Your task to perform on an android device: toggle sleep mode Image 0: 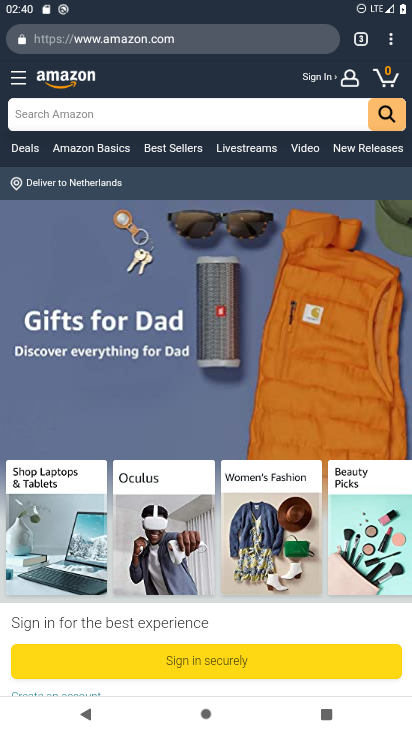
Step 0: press home button
Your task to perform on an android device: toggle sleep mode Image 1: 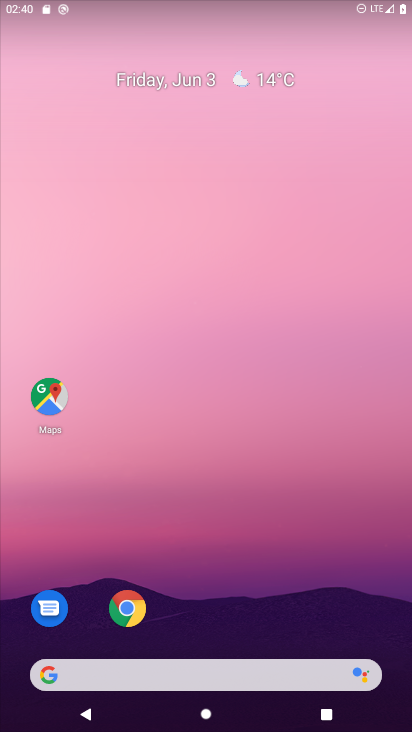
Step 1: drag from (244, 568) to (293, 100)
Your task to perform on an android device: toggle sleep mode Image 2: 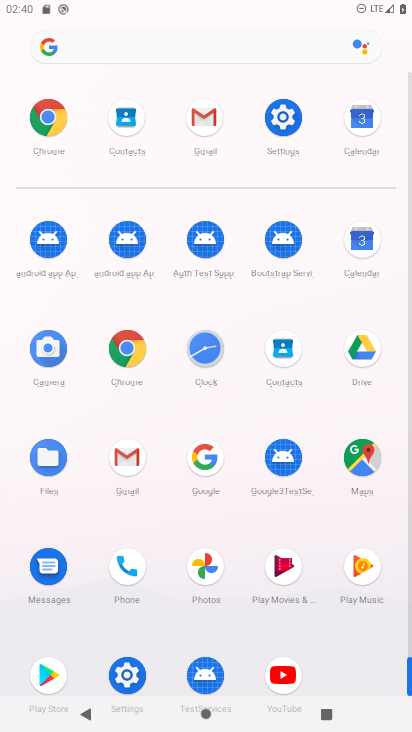
Step 2: click (287, 125)
Your task to perform on an android device: toggle sleep mode Image 3: 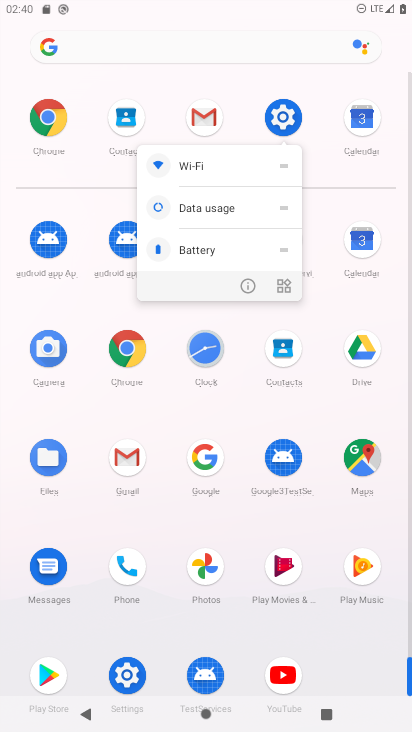
Step 3: click (286, 123)
Your task to perform on an android device: toggle sleep mode Image 4: 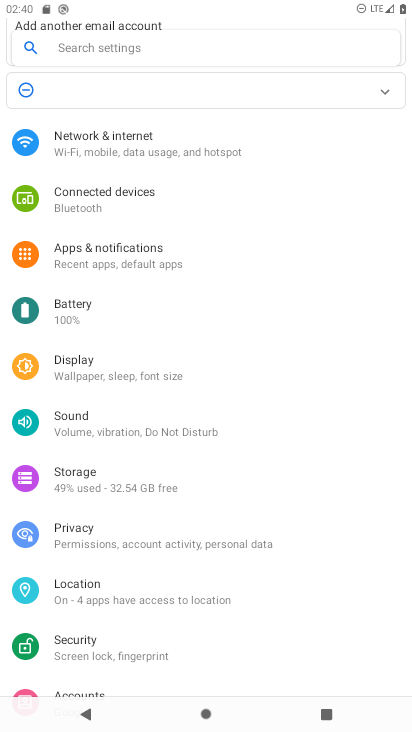
Step 4: click (88, 378)
Your task to perform on an android device: toggle sleep mode Image 5: 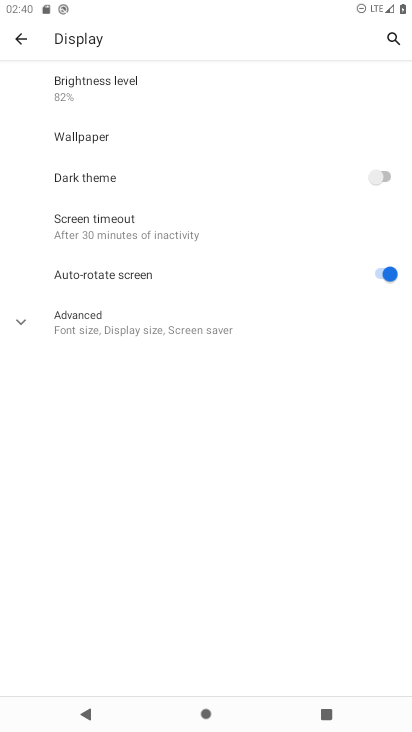
Step 5: click (118, 228)
Your task to perform on an android device: toggle sleep mode Image 6: 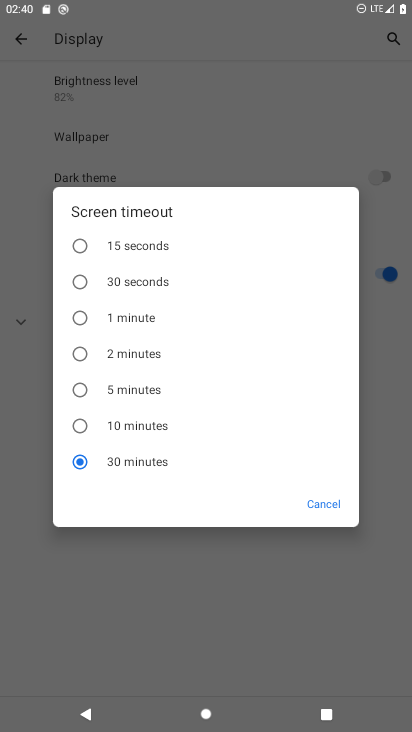
Step 6: click (115, 427)
Your task to perform on an android device: toggle sleep mode Image 7: 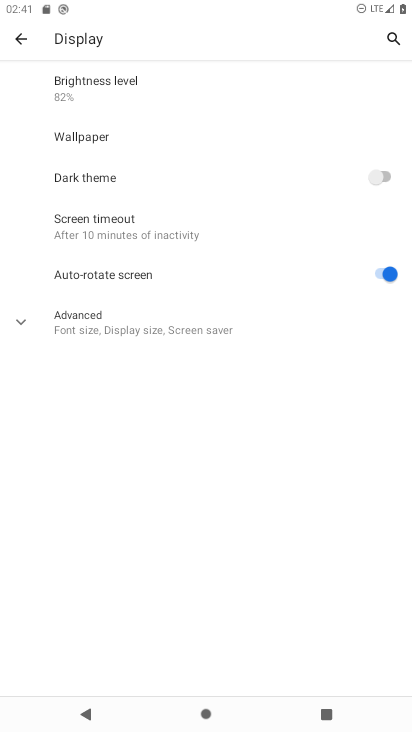
Step 7: task complete